Your task to perform on an android device: change notifications settings Image 0: 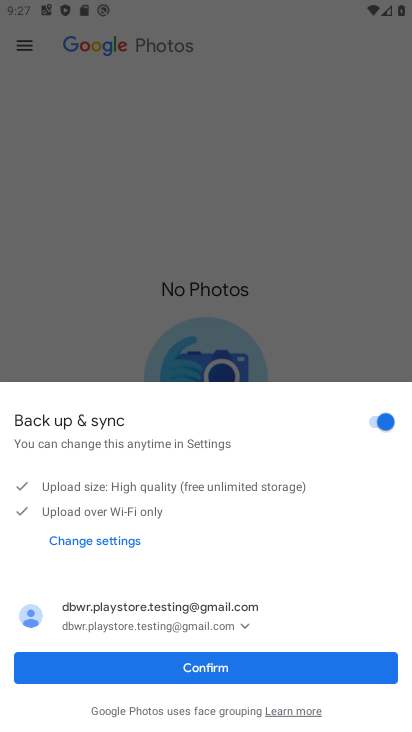
Step 0: press home button
Your task to perform on an android device: change notifications settings Image 1: 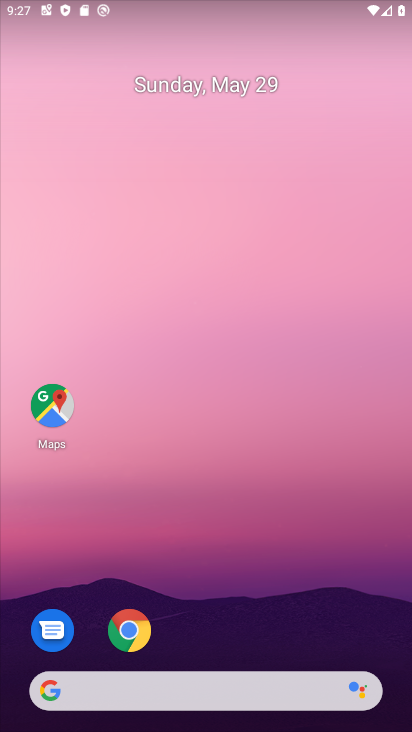
Step 1: drag from (280, 625) to (270, 235)
Your task to perform on an android device: change notifications settings Image 2: 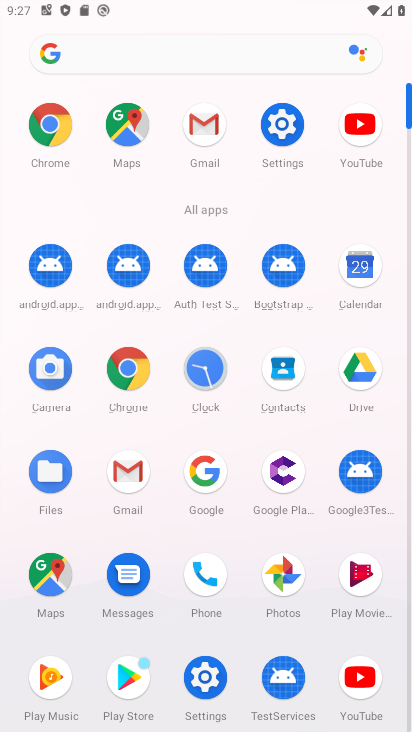
Step 2: click (217, 689)
Your task to perform on an android device: change notifications settings Image 3: 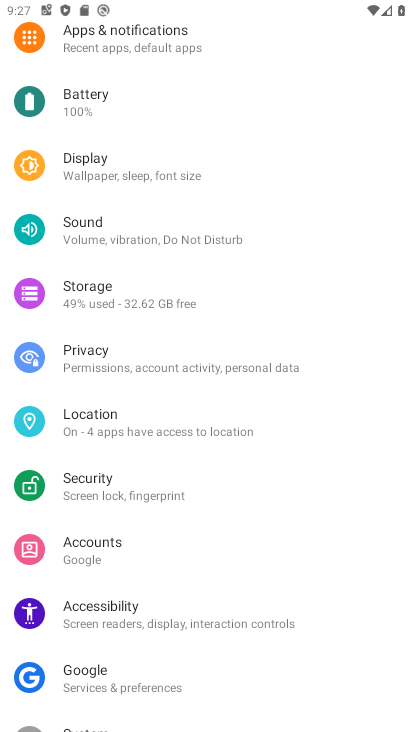
Step 3: drag from (254, 119) to (234, 338)
Your task to perform on an android device: change notifications settings Image 4: 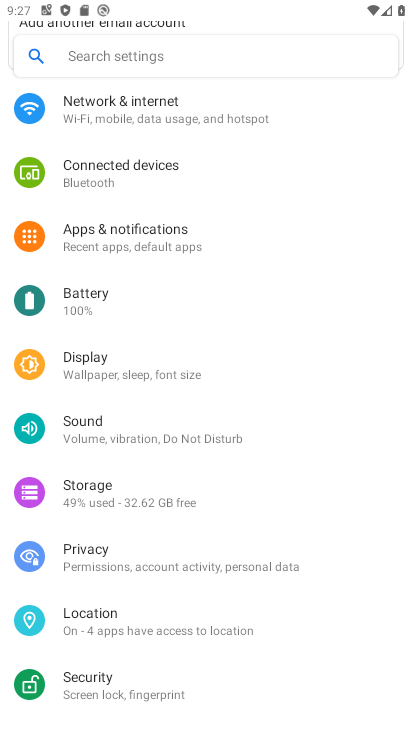
Step 4: click (198, 234)
Your task to perform on an android device: change notifications settings Image 5: 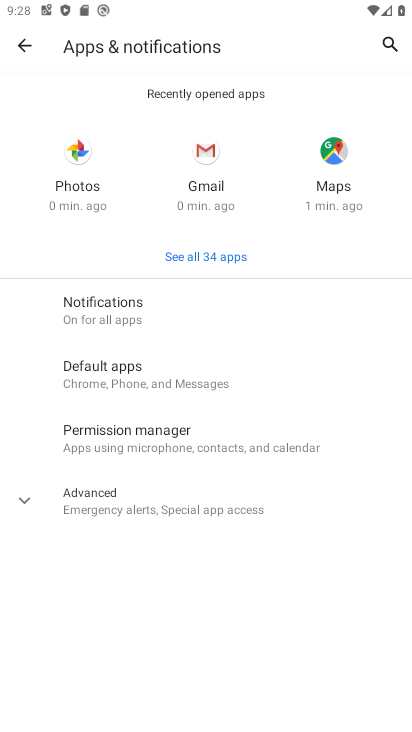
Step 5: click (216, 280)
Your task to perform on an android device: change notifications settings Image 6: 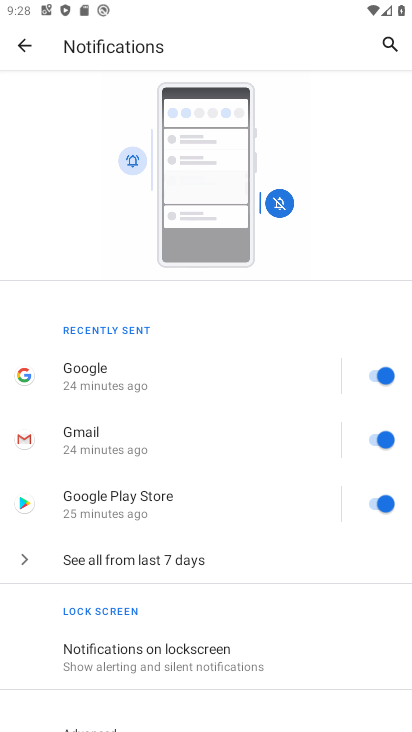
Step 6: drag from (235, 616) to (200, 237)
Your task to perform on an android device: change notifications settings Image 7: 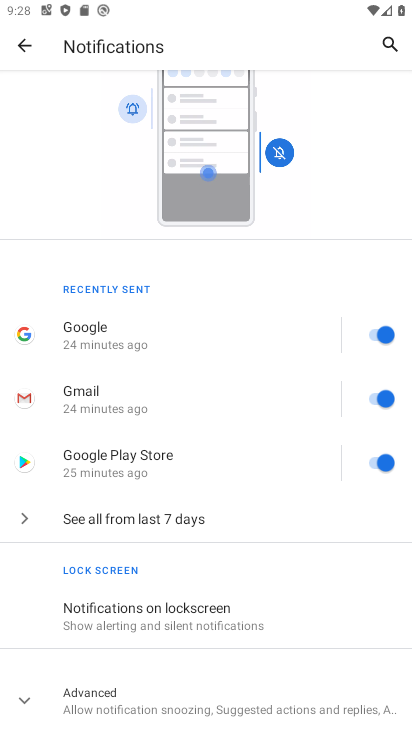
Step 7: click (164, 696)
Your task to perform on an android device: change notifications settings Image 8: 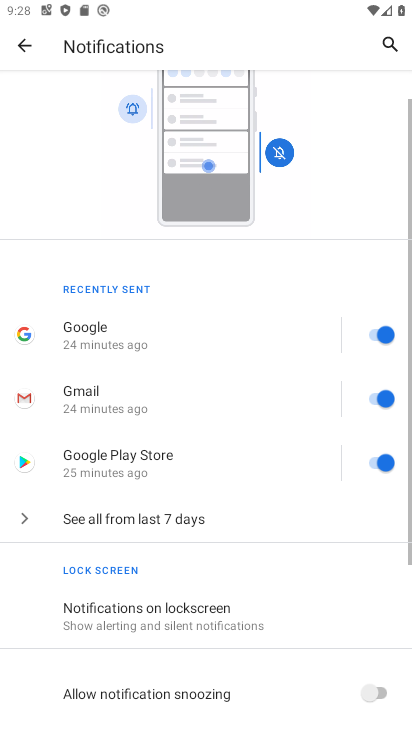
Step 8: drag from (163, 691) to (146, 444)
Your task to perform on an android device: change notifications settings Image 9: 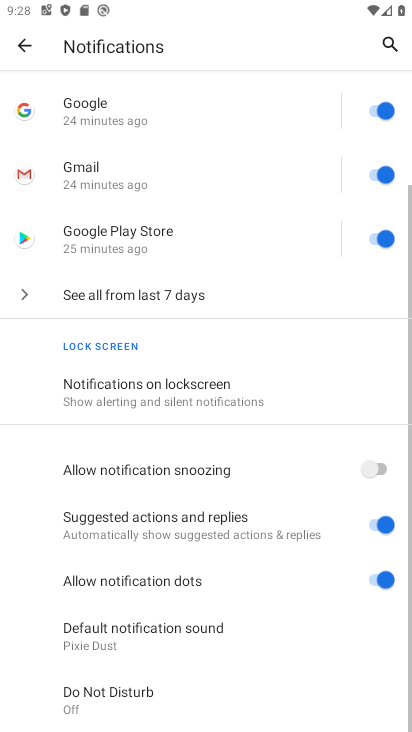
Step 9: click (345, 474)
Your task to perform on an android device: change notifications settings Image 10: 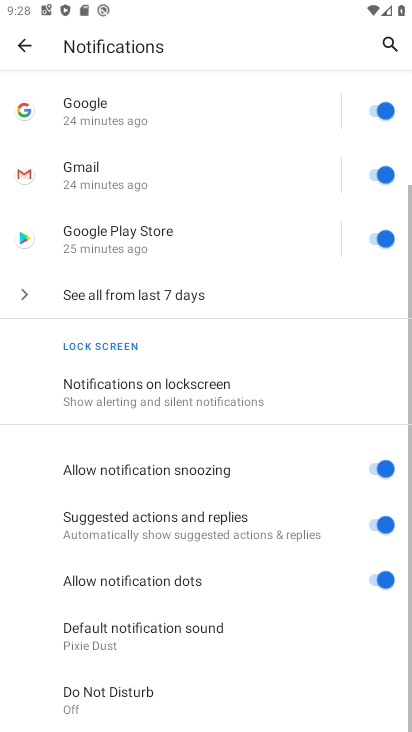
Step 10: click (377, 527)
Your task to perform on an android device: change notifications settings Image 11: 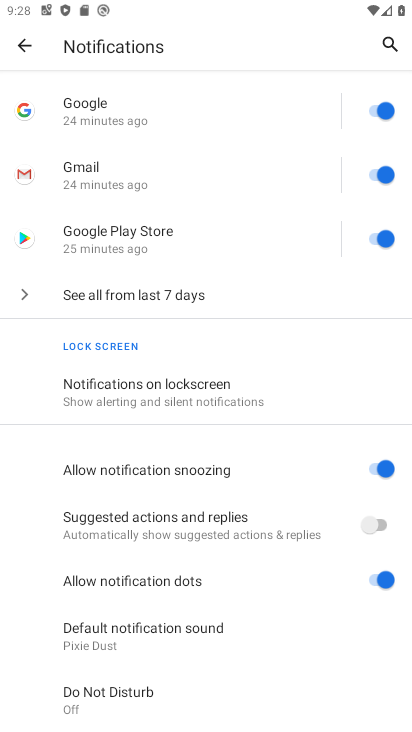
Step 11: task complete